Your task to perform on an android device: Do I have any events today? Image 0: 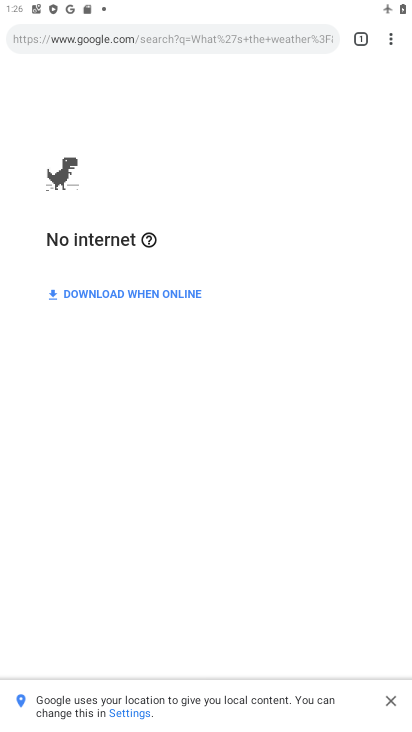
Step 0: press home button
Your task to perform on an android device: Do I have any events today? Image 1: 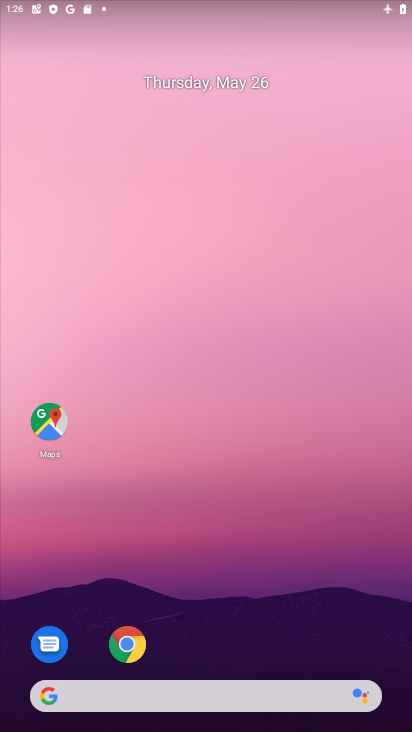
Step 1: drag from (252, 627) to (311, 327)
Your task to perform on an android device: Do I have any events today? Image 2: 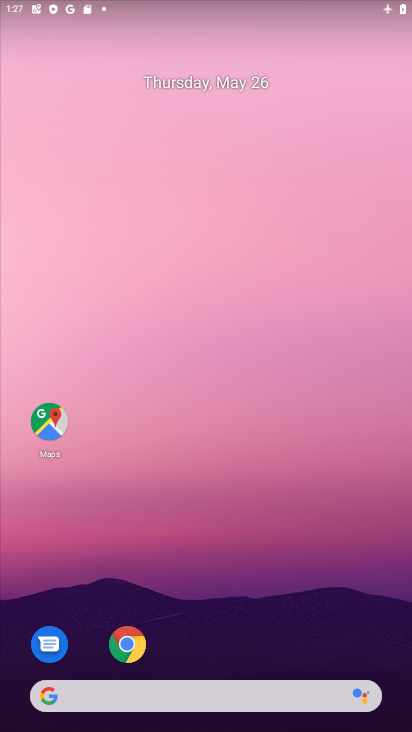
Step 2: drag from (250, 659) to (274, 272)
Your task to perform on an android device: Do I have any events today? Image 3: 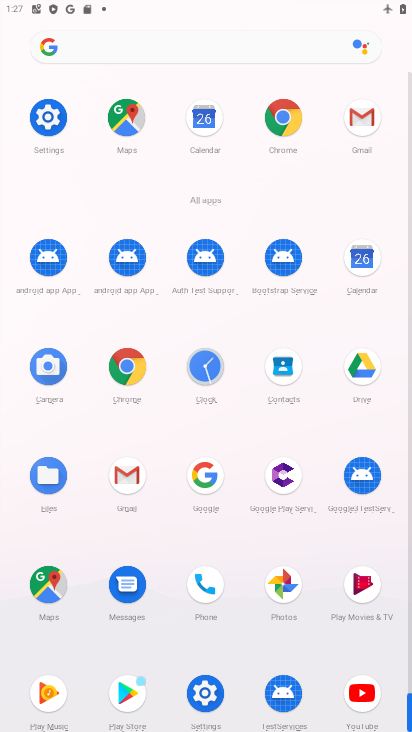
Step 3: click (373, 251)
Your task to perform on an android device: Do I have any events today? Image 4: 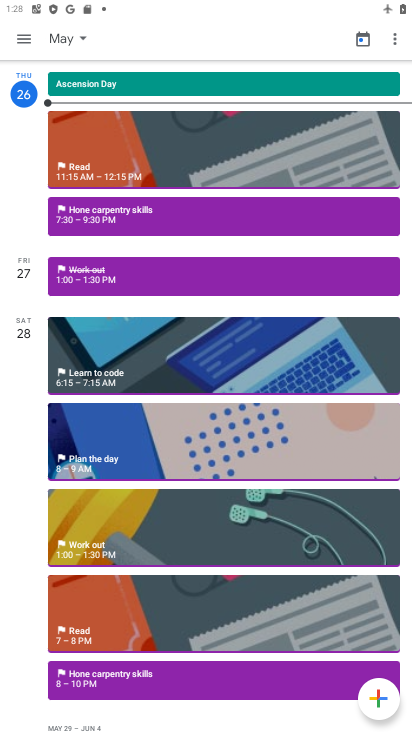
Step 4: task complete